Your task to perform on an android device: Go to eBay Image 0: 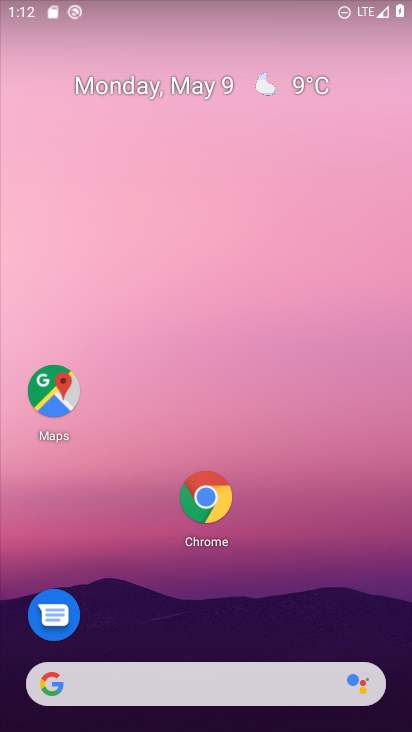
Step 0: drag from (315, 597) to (198, 35)
Your task to perform on an android device: Go to eBay Image 1: 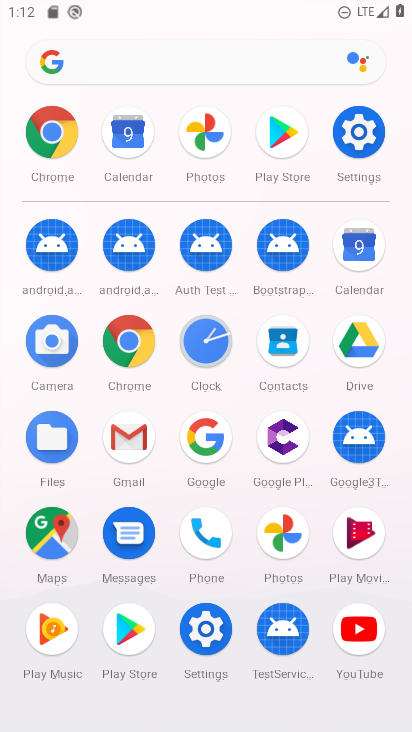
Step 1: click (121, 343)
Your task to perform on an android device: Go to eBay Image 2: 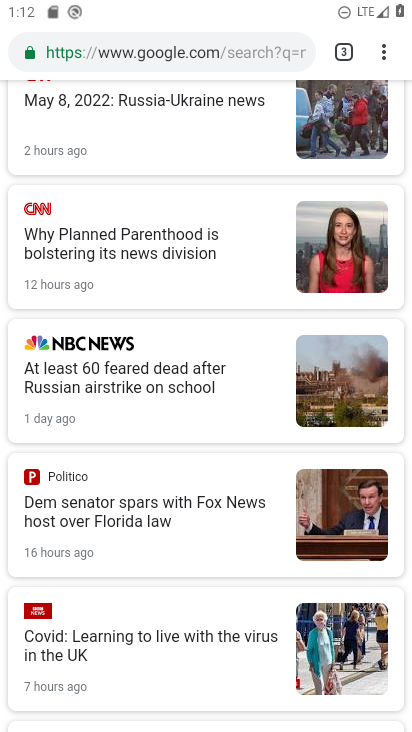
Step 2: click (213, 48)
Your task to perform on an android device: Go to eBay Image 3: 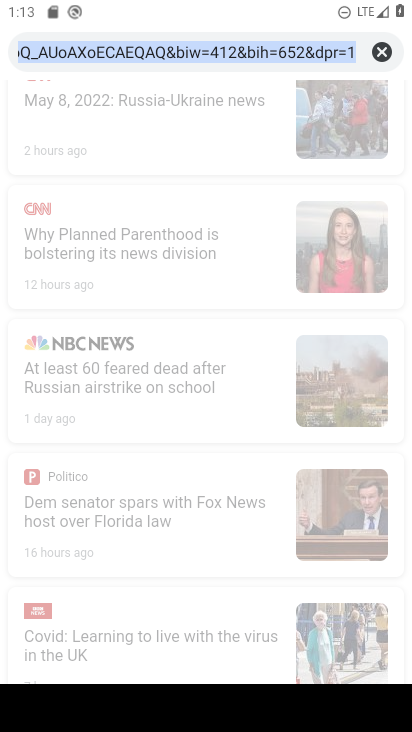
Step 3: type "ebay"
Your task to perform on an android device: Go to eBay Image 4: 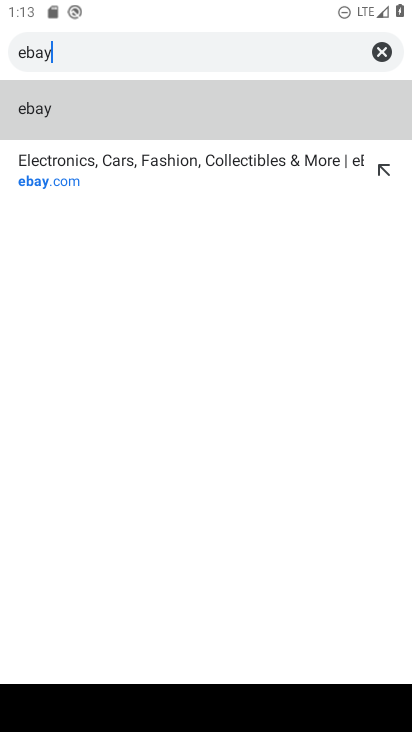
Step 4: click (46, 130)
Your task to perform on an android device: Go to eBay Image 5: 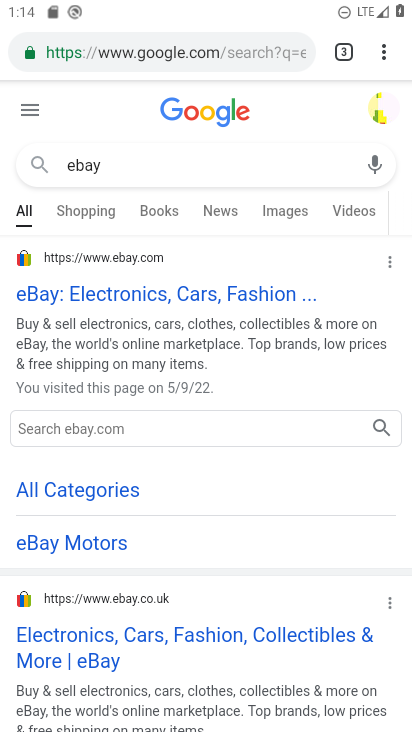
Step 5: click (102, 288)
Your task to perform on an android device: Go to eBay Image 6: 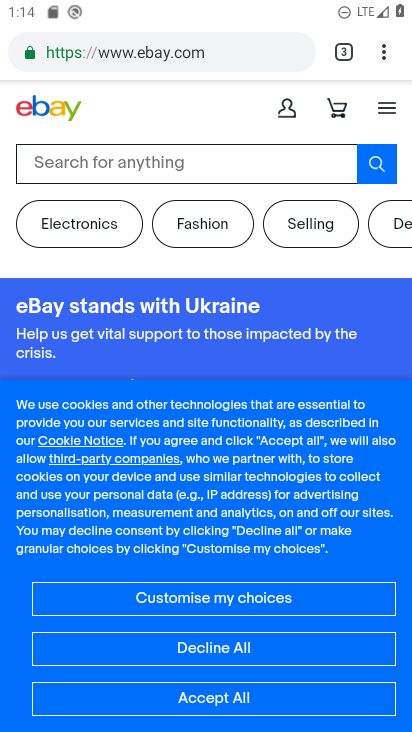
Step 6: task complete